Your task to perform on an android device: What's the weather going to be this weekend? Image 0: 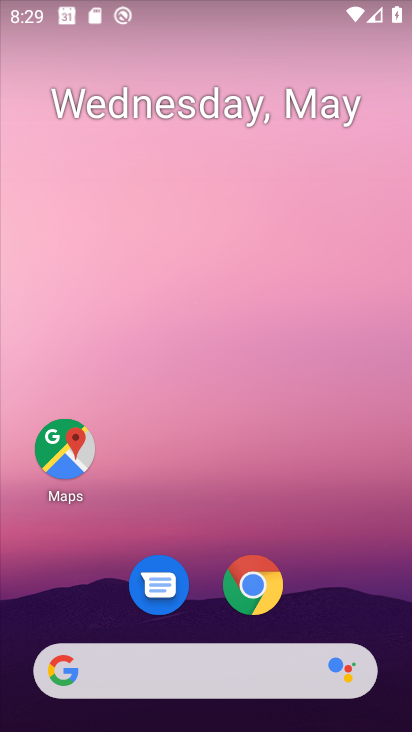
Step 0: click (250, 658)
Your task to perform on an android device: What's the weather going to be this weekend? Image 1: 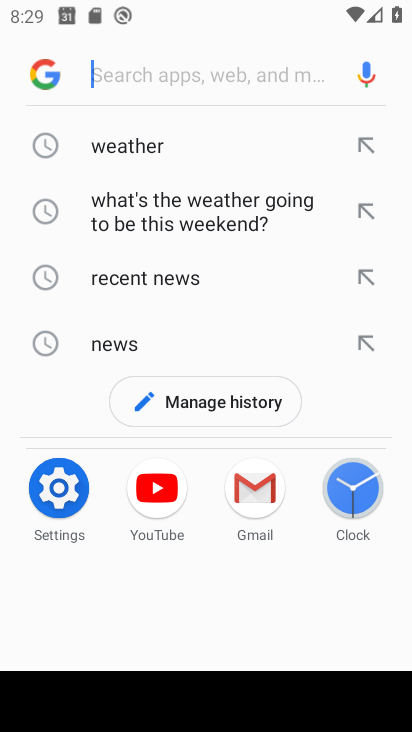
Step 1: click (45, 68)
Your task to perform on an android device: What's the weather going to be this weekend? Image 2: 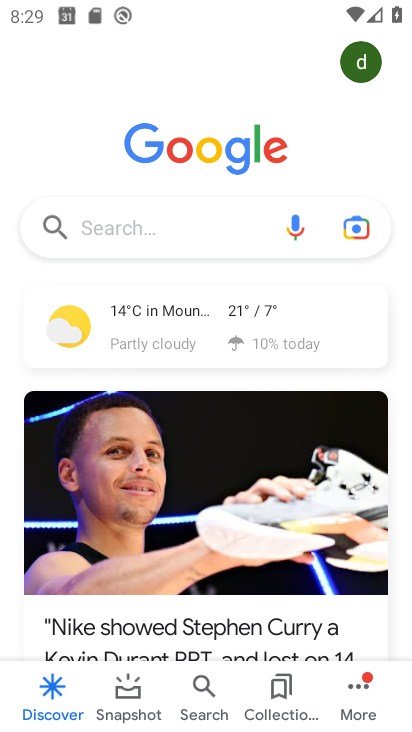
Step 2: click (258, 327)
Your task to perform on an android device: What's the weather going to be this weekend? Image 3: 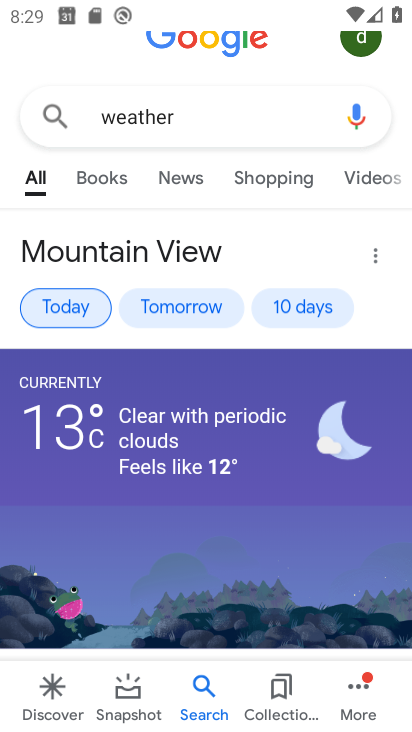
Step 3: click (286, 299)
Your task to perform on an android device: What's the weather going to be this weekend? Image 4: 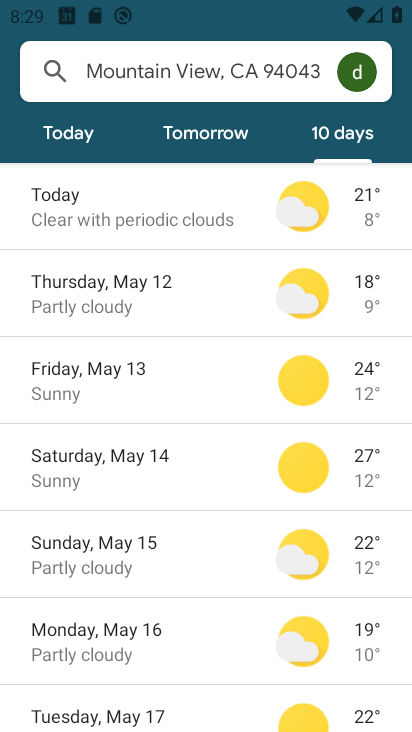
Step 4: click (201, 453)
Your task to perform on an android device: What's the weather going to be this weekend? Image 5: 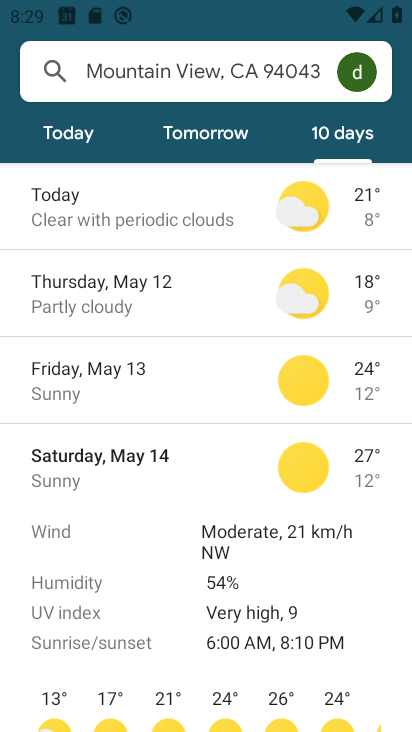
Step 5: task complete